Your task to perform on an android device: Do I have any events this weekend? Image 0: 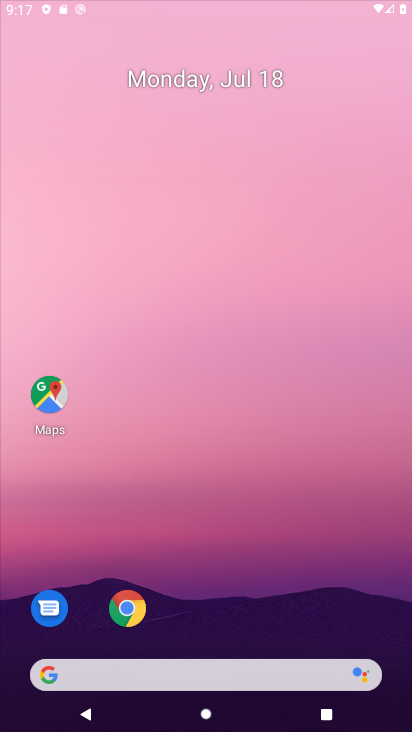
Step 0: drag from (146, 32) to (303, 46)
Your task to perform on an android device: Do I have any events this weekend? Image 1: 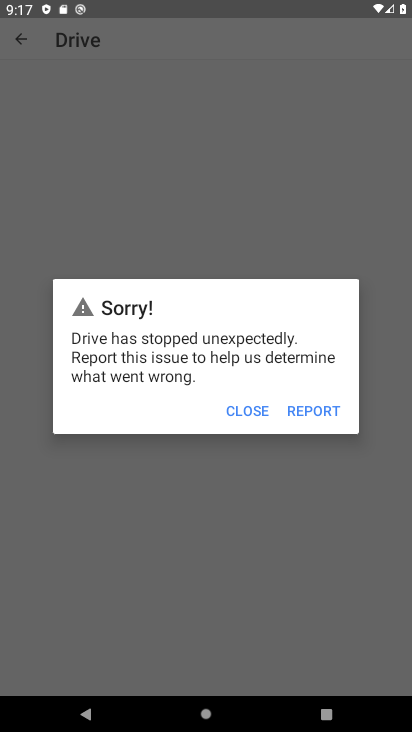
Step 1: drag from (323, 658) to (268, 343)
Your task to perform on an android device: Do I have any events this weekend? Image 2: 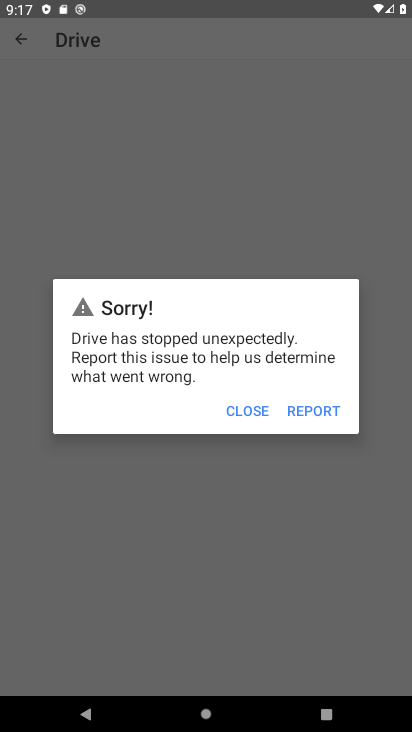
Step 2: click (241, 412)
Your task to perform on an android device: Do I have any events this weekend? Image 3: 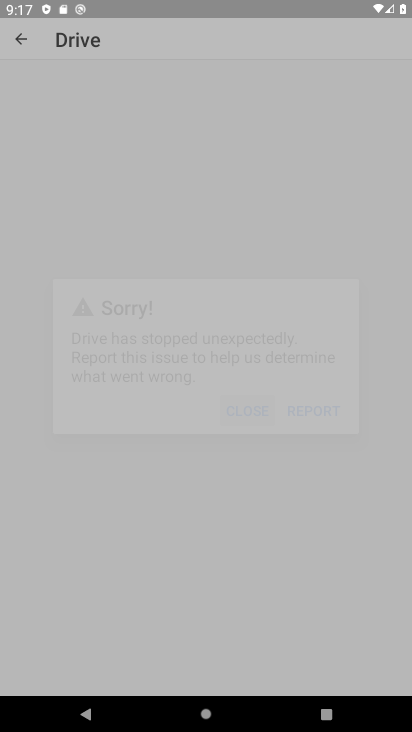
Step 3: click (246, 397)
Your task to perform on an android device: Do I have any events this weekend? Image 4: 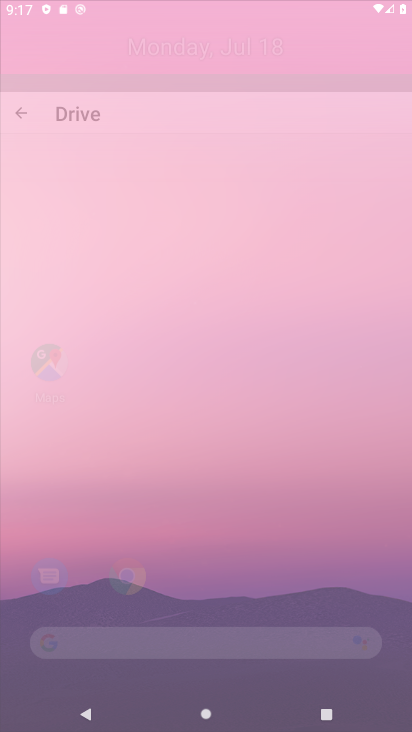
Step 4: click (250, 407)
Your task to perform on an android device: Do I have any events this weekend? Image 5: 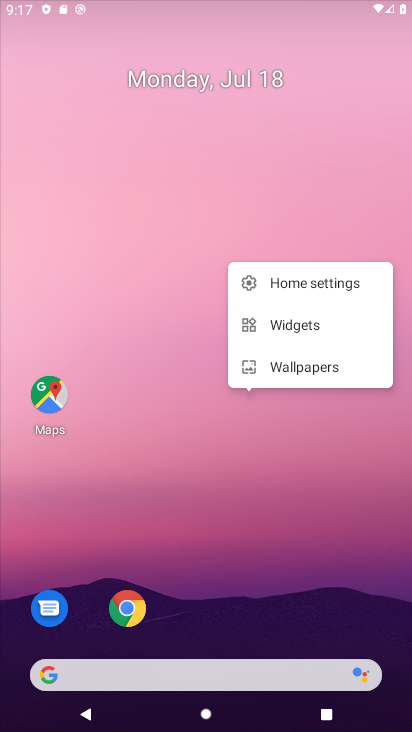
Step 5: drag from (186, 495) to (165, 52)
Your task to perform on an android device: Do I have any events this weekend? Image 6: 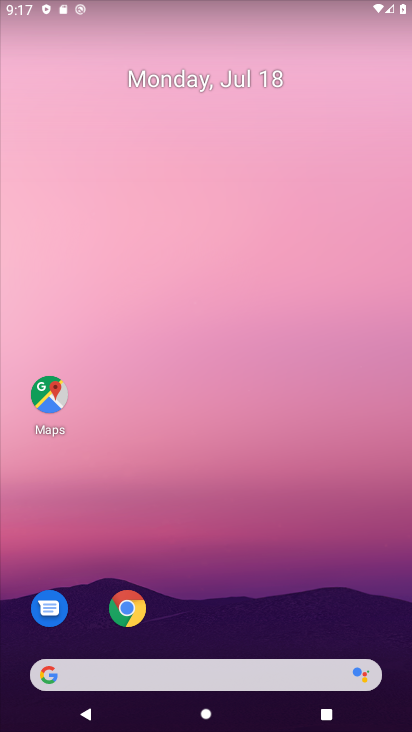
Step 6: drag from (277, 621) to (227, 101)
Your task to perform on an android device: Do I have any events this weekend? Image 7: 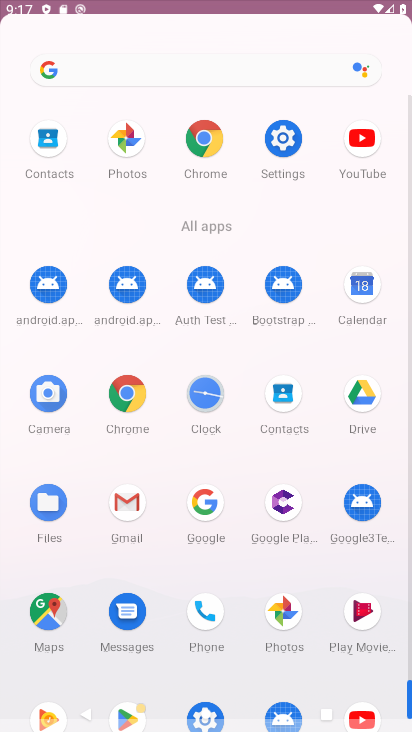
Step 7: drag from (228, 631) to (201, 70)
Your task to perform on an android device: Do I have any events this weekend? Image 8: 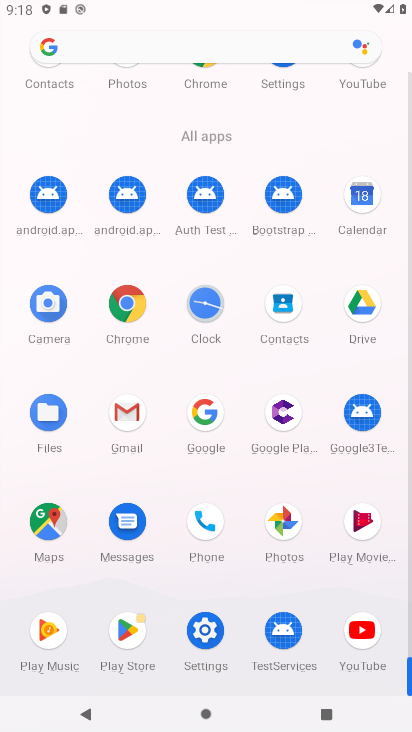
Step 8: click (360, 210)
Your task to perform on an android device: Do I have any events this weekend? Image 9: 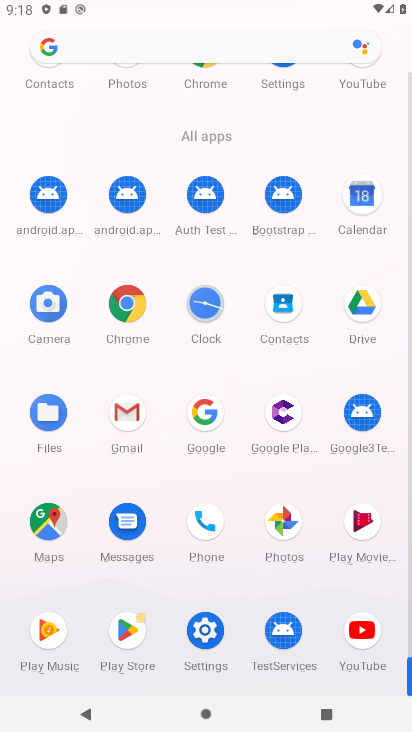
Step 9: click (361, 201)
Your task to perform on an android device: Do I have any events this weekend? Image 10: 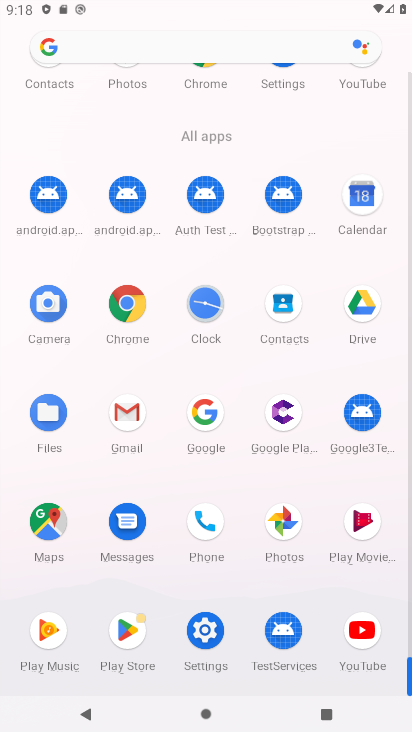
Step 10: click (361, 201)
Your task to perform on an android device: Do I have any events this weekend? Image 11: 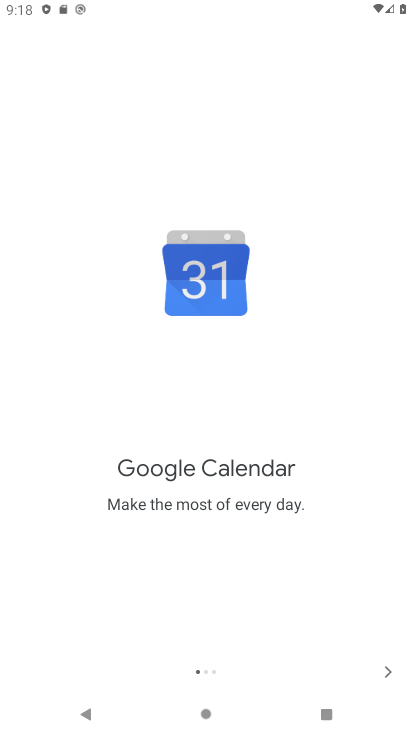
Step 11: click (372, 664)
Your task to perform on an android device: Do I have any events this weekend? Image 12: 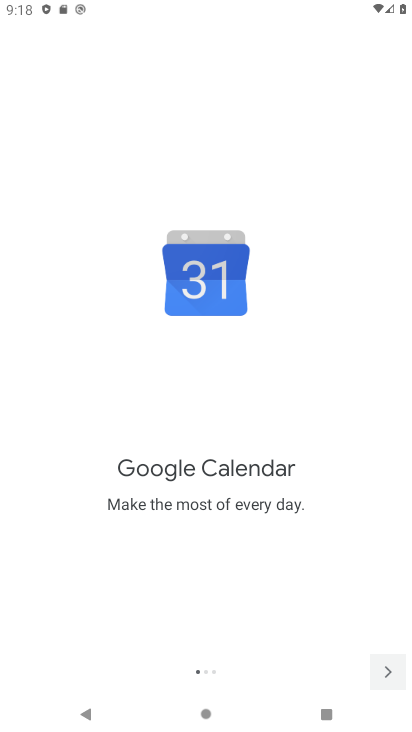
Step 12: click (376, 669)
Your task to perform on an android device: Do I have any events this weekend? Image 13: 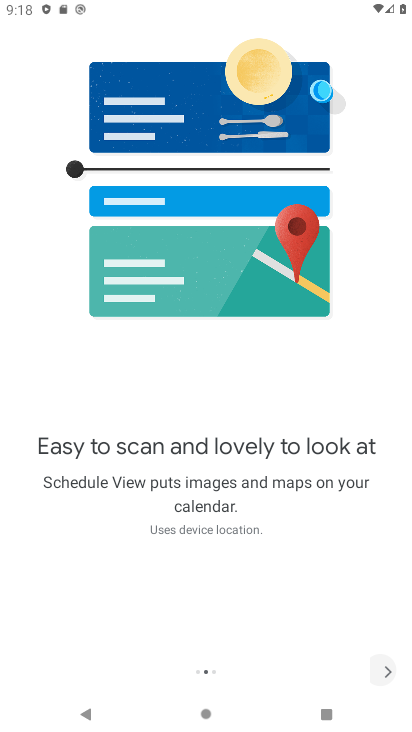
Step 13: click (376, 669)
Your task to perform on an android device: Do I have any events this weekend? Image 14: 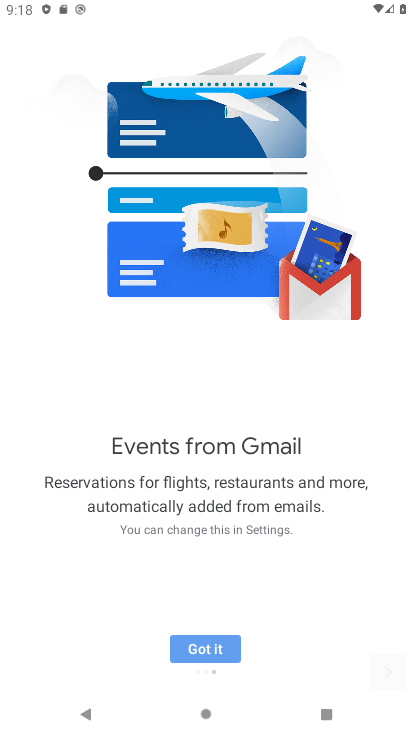
Step 14: click (376, 670)
Your task to perform on an android device: Do I have any events this weekend? Image 15: 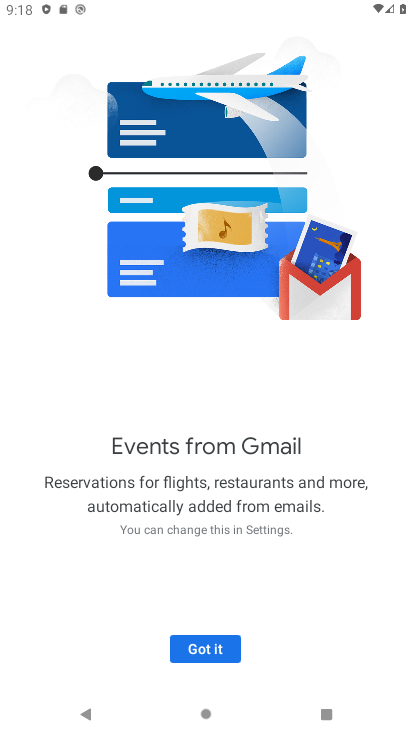
Step 15: click (194, 630)
Your task to perform on an android device: Do I have any events this weekend? Image 16: 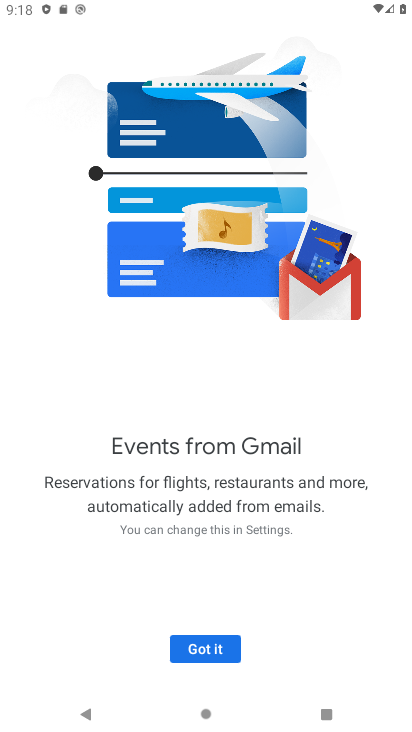
Step 16: click (205, 643)
Your task to perform on an android device: Do I have any events this weekend? Image 17: 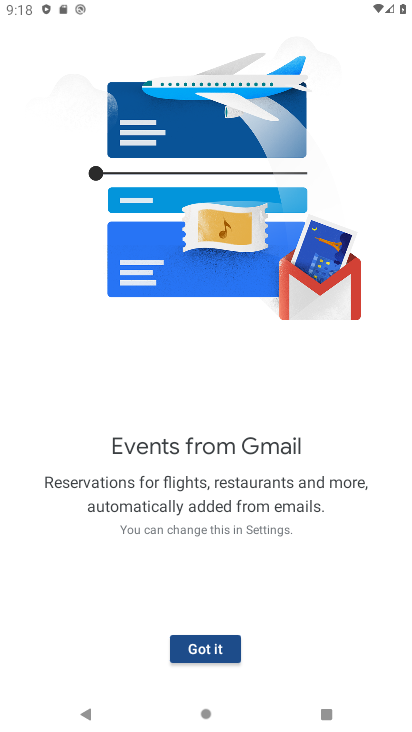
Step 17: click (205, 640)
Your task to perform on an android device: Do I have any events this weekend? Image 18: 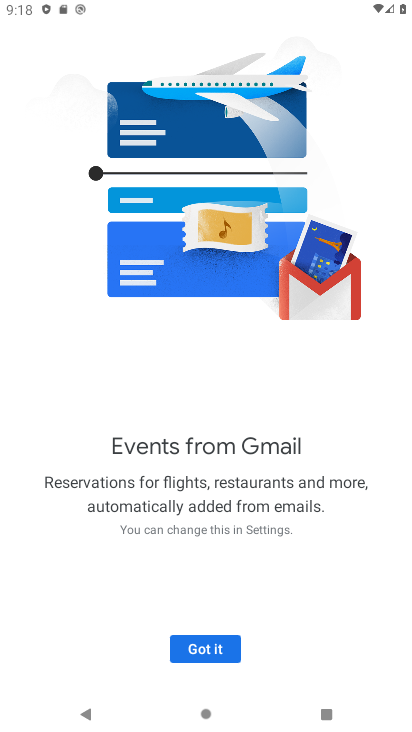
Step 18: click (208, 639)
Your task to perform on an android device: Do I have any events this weekend? Image 19: 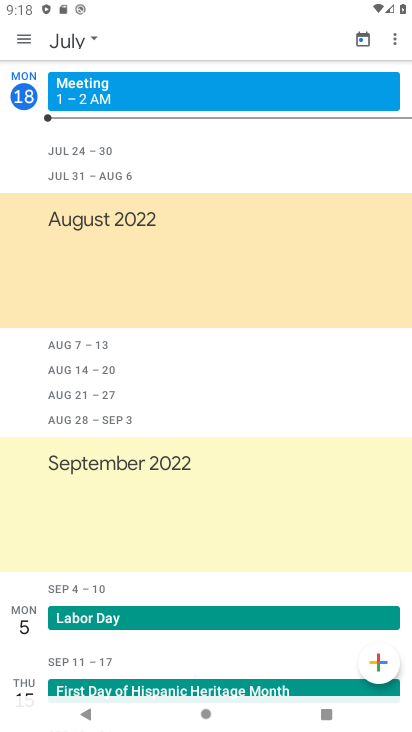
Step 19: click (93, 37)
Your task to perform on an android device: Do I have any events this weekend? Image 20: 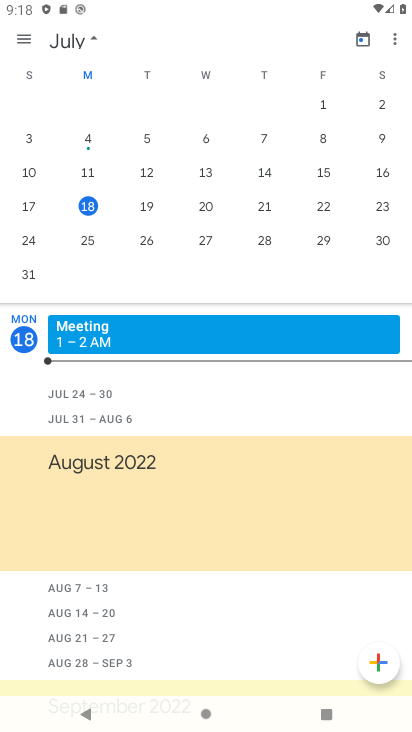
Step 20: click (143, 211)
Your task to perform on an android device: Do I have any events this weekend? Image 21: 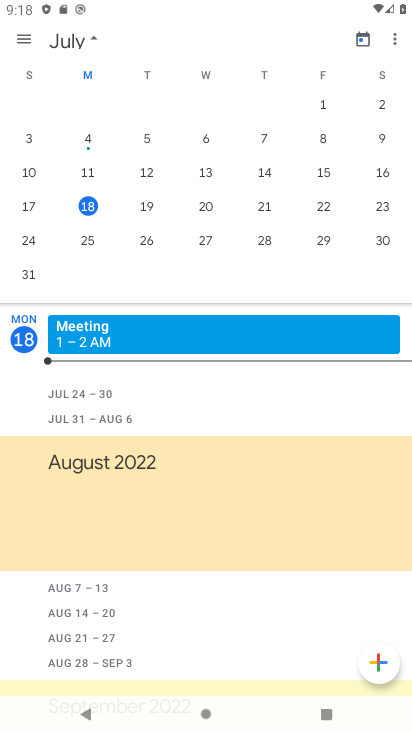
Step 21: click (143, 209)
Your task to perform on an android device: Do I have any events this weekend? Image 22: 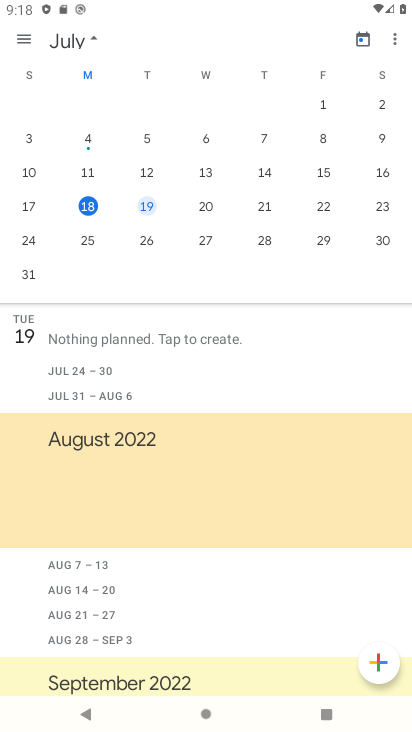
Step 22: click (144, 208)
Your task to perform on an android device: Do I have any events this weekend? Image 23: 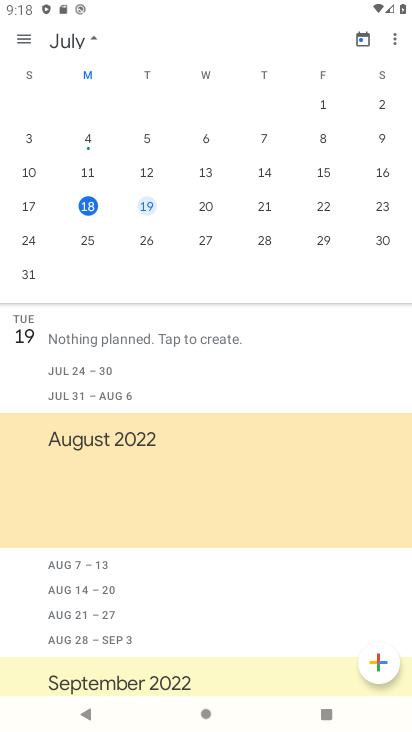
Step 23: task complete